Your task to perform on an android device: Go to notification settings Image 0: 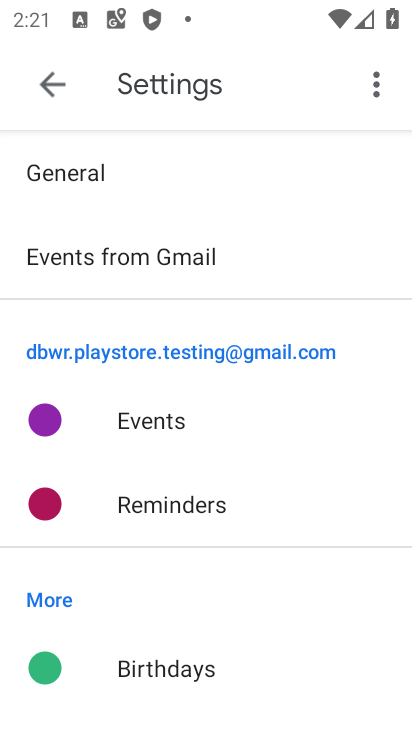
Step 0: press home button
Your task to perform on an android device: Go to notification settings Image 1: 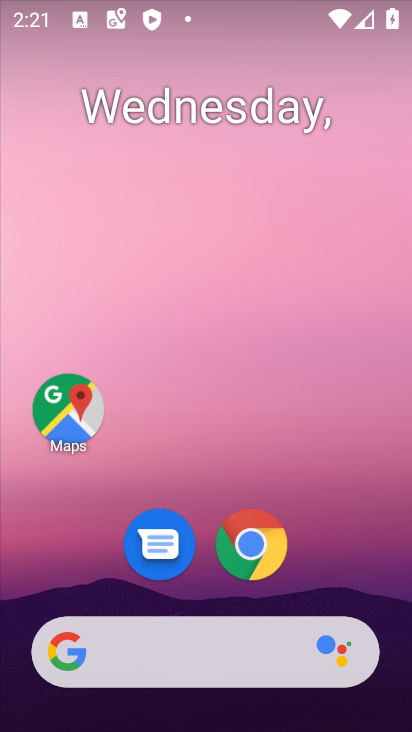
Step 1: drag from (394, 618) to (283, 1)
Your task to perform on an android device: Go to notification settings Image 2: 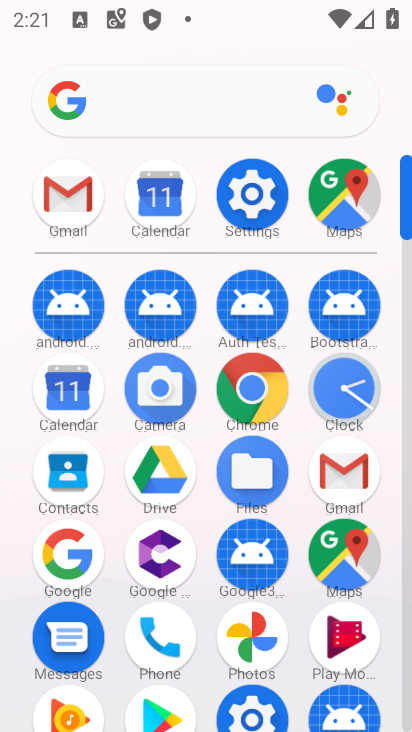
Step 2: click (408, 702)
Your task to perform on an android device: Go to notification settings Image 3: 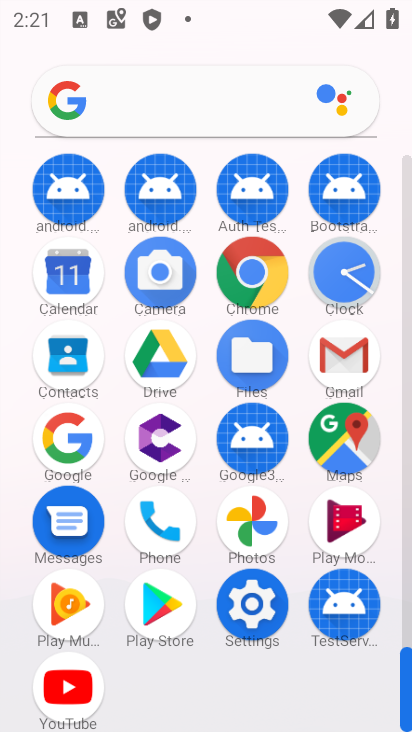
Step 3: click (251, 601)
Your task to perform on an android device: Go to notification settings Image 4: 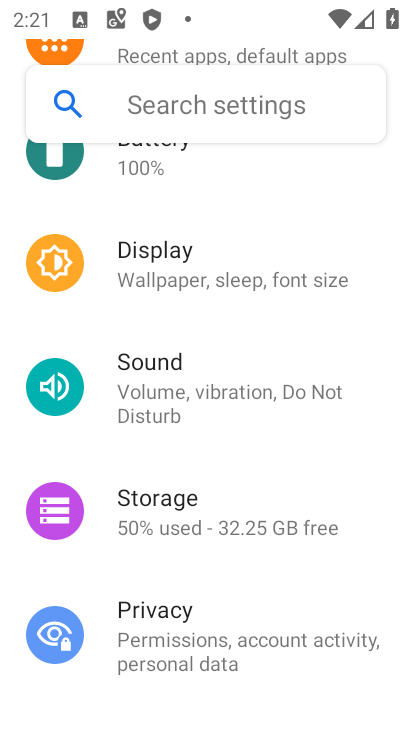
Step 4: drag from (359, 205) to (339, 356)
Your task to perform on an android device: Go to notification settings Image 5: 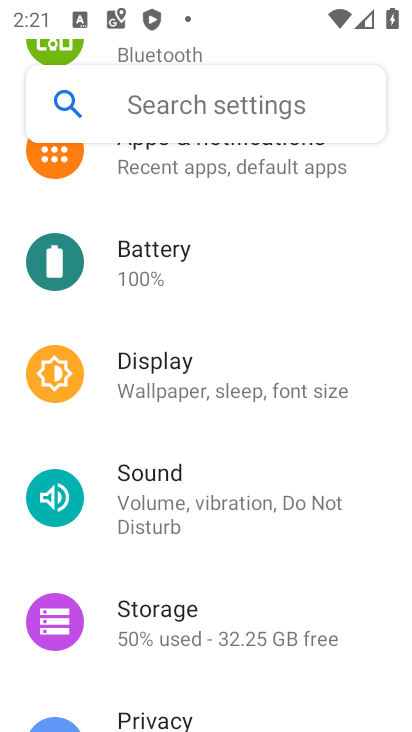
Step 5: drag from (326, 191) to (347, 564)
Your task to perform on an android device: Go to notification settings Image 6: 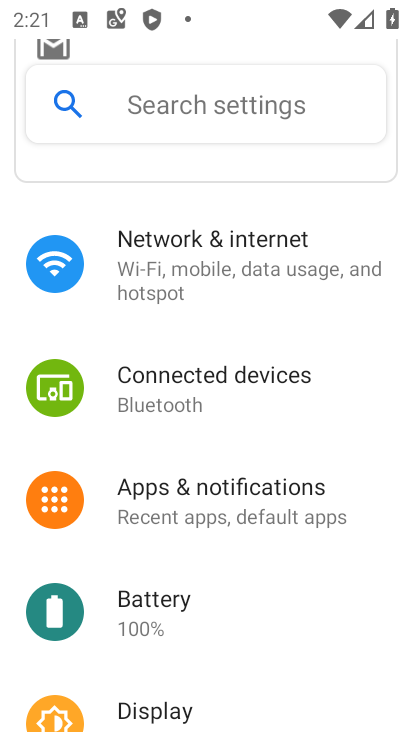
Step 6: click (185, 495)
Your task to perform on an android device: Go to notification settings Image 7: 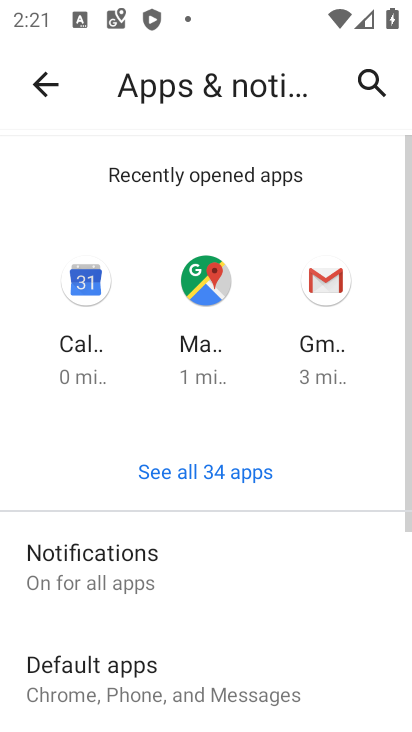
Step 7: drag from (285, 613) to (288, 247)
Your task to perform on an android device: Go to notification settings Image 8: 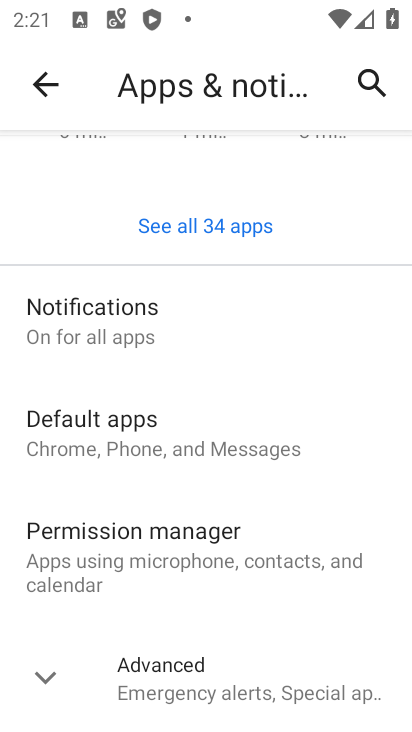
Step 8: click (67, 308)
Your task to perform on an android device: Go to notification settings Image 9: 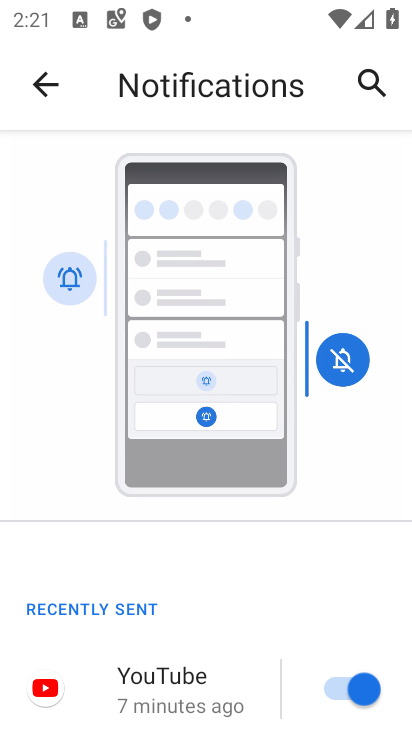
Step 9: drag from (285, 673) to (186, 120)
Your task to perform on an android device: Go to notification settings Image 10: 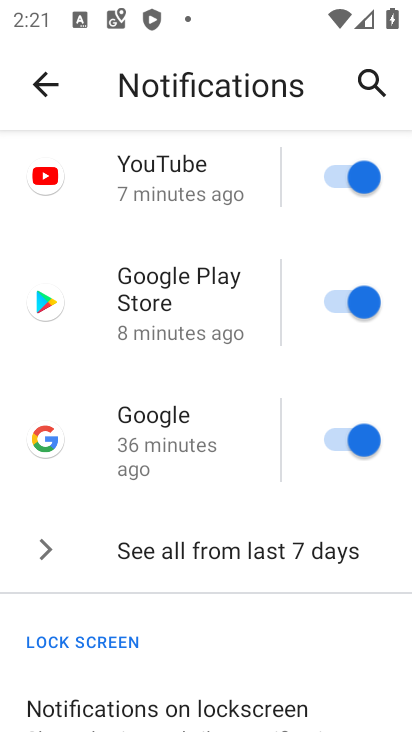
Step 10: drag from (270, 671) to (263, 228)
Your task to perform on an android device: Go to notification settings Image 11: 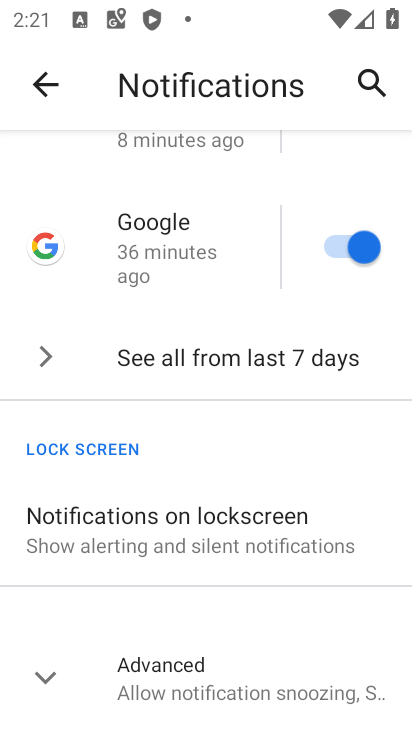
Step 11: click (49, 678)
Your task to perform on an android device: Go to notification settings Image 12: 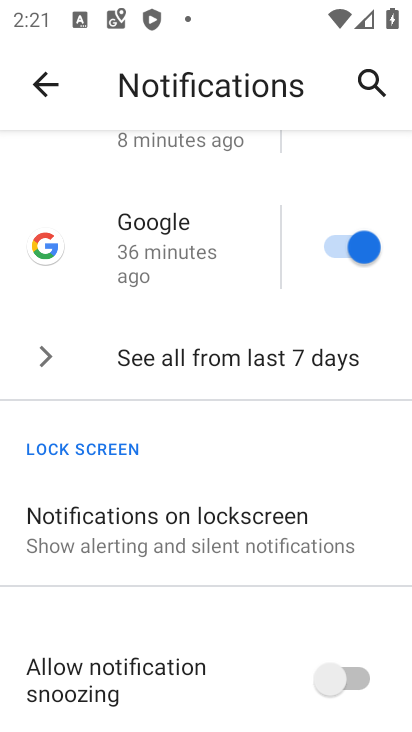
Step 12: task complete